Your task to perform on an android device: open app "Messages" (install if not already installed) and go to login screen Image 0: 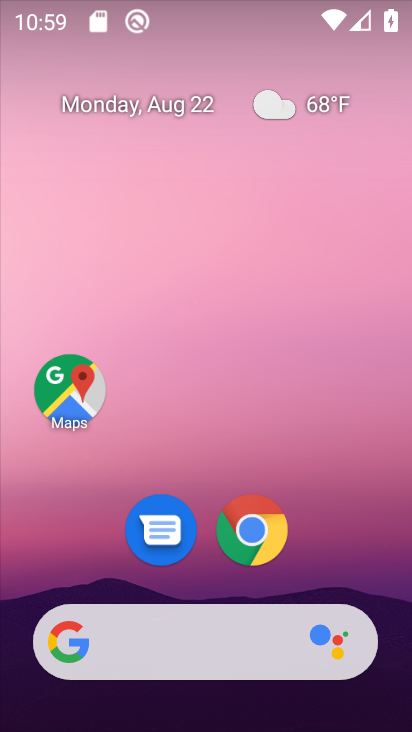
Step 0: drag from (194, 655) to (229, 42)
Your task to perform on an android device: open app "Messages" (install if not already installed) and go to login screen Image 1: 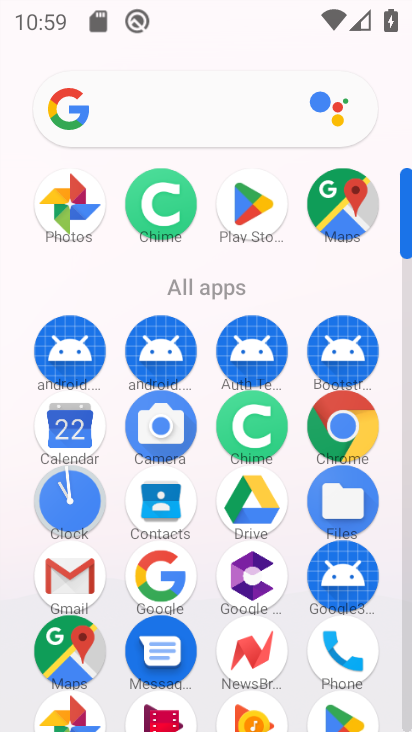
Step 1: drag from (207, 627) to (248, 192)
Your task to perform on an android device: open app "Messages" (install if not already installed) and go to login screen Image 2: 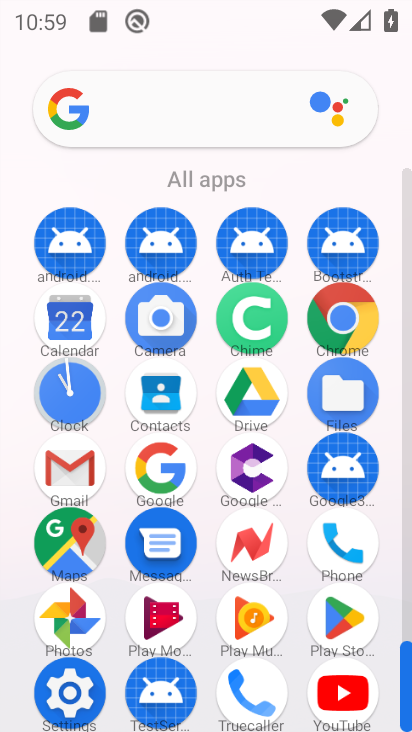
Step 2: click (344, 622)
Your task to perform on an android device: open app "Messages" (install if not already installed) and go to login screen Image 3: 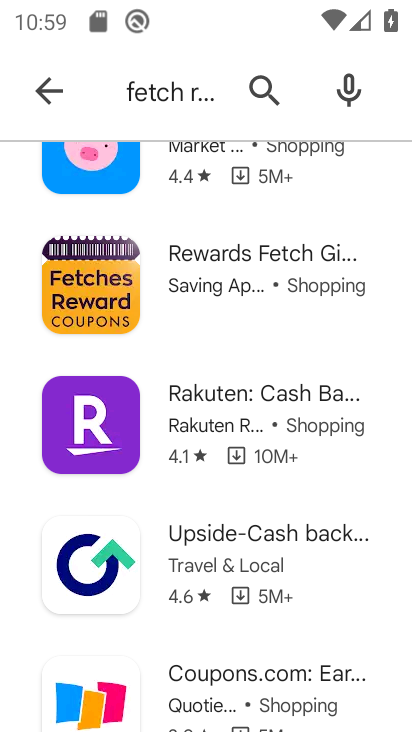
Step 3: press back button
Your task to perform on an android device: open app "Messages" (install if not already installed) and go to login screen Image 4: 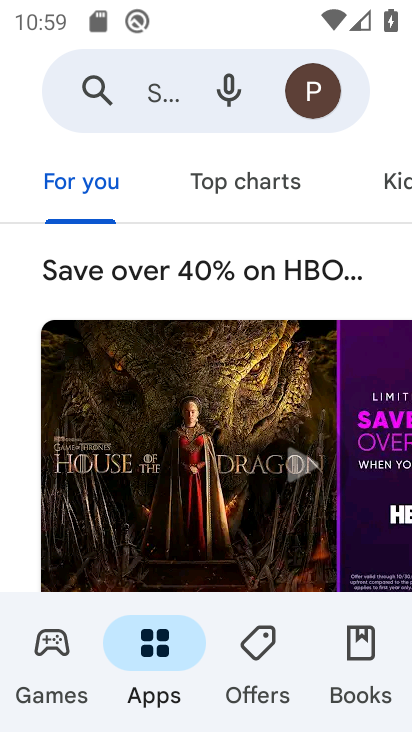
Step 4: click (174, 94)
Your task to perform on an android device: open app "Messages" (install if not already installed) and go to login screen Image 5: 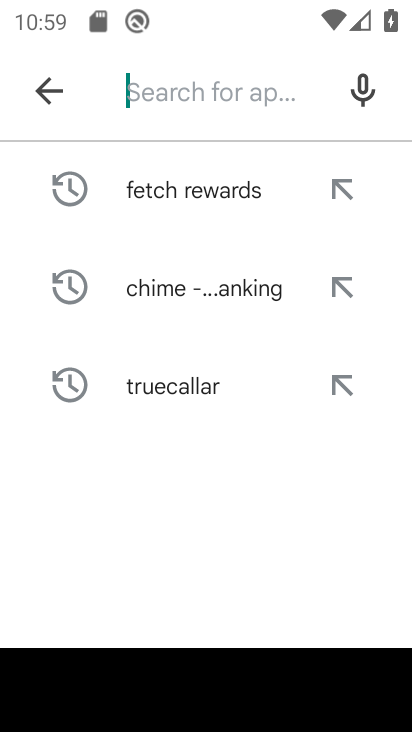
Step 5: type "Messages"
Your task to perform on an android device: open app "Messages" (install if not already installed) and go to login screen Image 6: 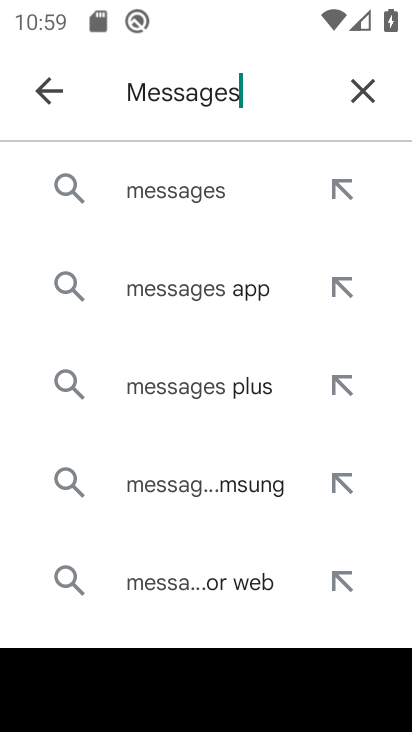
Step 6: click (170, 197)
Your task to perform on an android device: open app "Messages" (install if not already installed) and go to login screen Image 7: 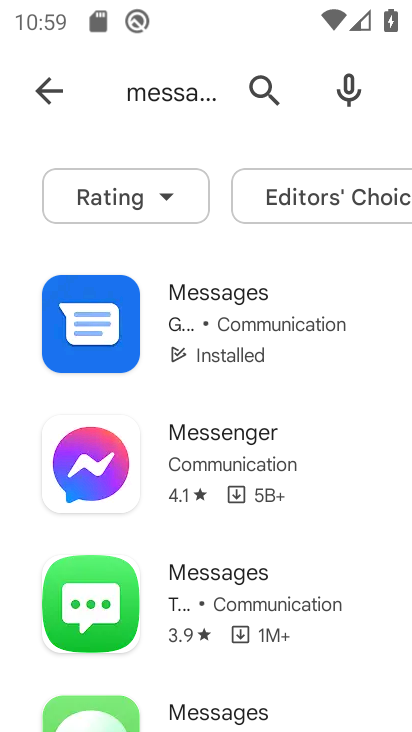
Step 7: click (208, 295)
Your task to perform on an android device: open app "Messages" (install if not already installed) and go to login screen Image 8: 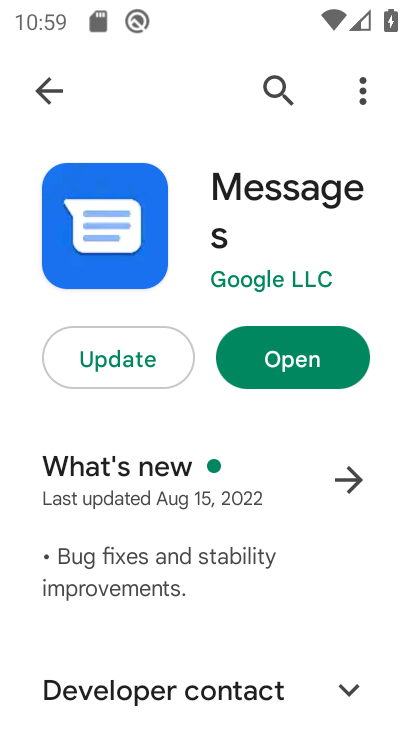
Step 8: click (111, 345)
Your task to perform on an android device: open app "Messages" (install if not already installed) and go to login screen Image 9: 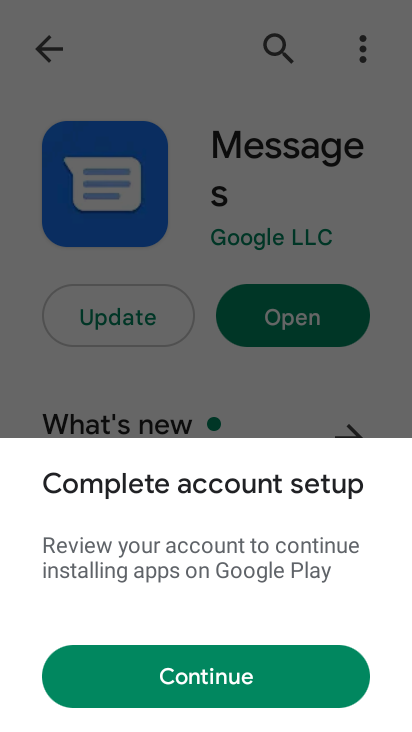
Step 9: click (141, 684)
Your task to perform on an android device: open app "Messages" (install if not already installed) and go to login screen Image 10: 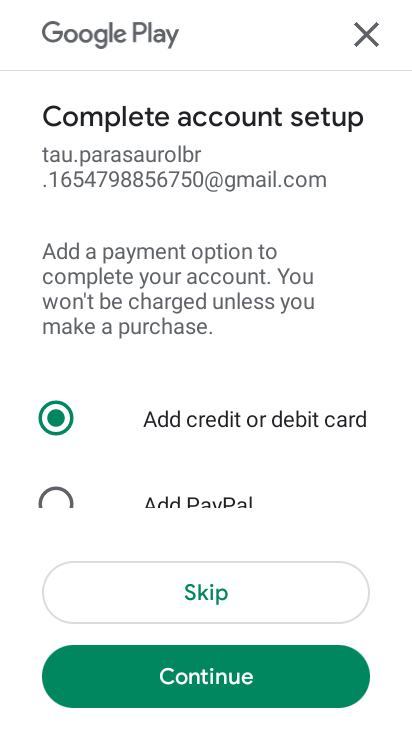
Step 10: click (152, 611)
Your task to perform on an android device: open app "Messages" (install if not already installed) and go to login screen Image 11: 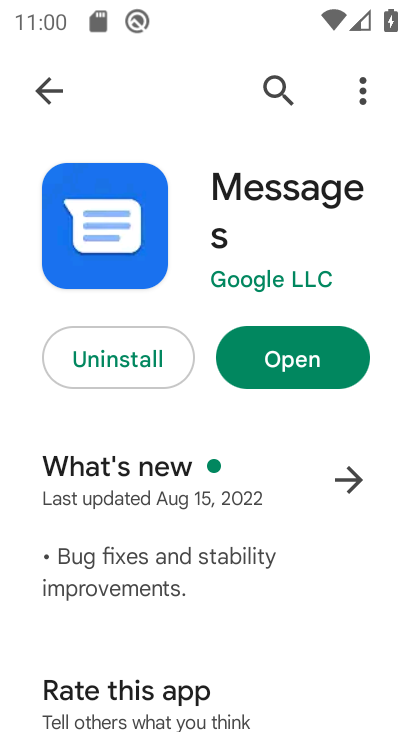
Step 11: click (266, 350)
Your task to perform on an android device: open app "Messages" (install if not already installed) and go to login screen Image 12: 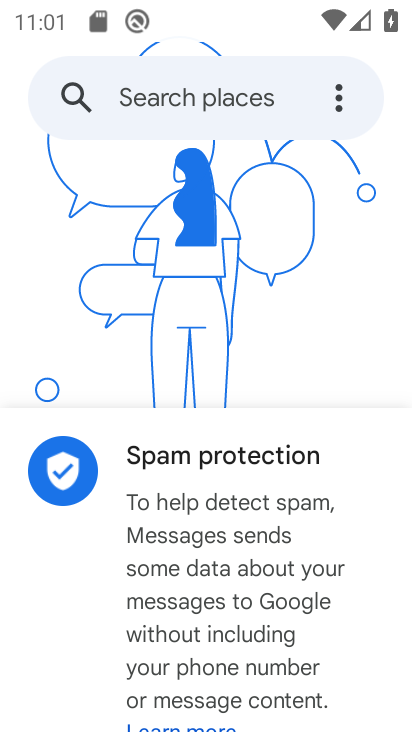
Step 12: drag from (215, 599) to (246, 213)
Your task to perform on an android device: open app "Messages" (install if not already installed) and go to login screen Image 13: 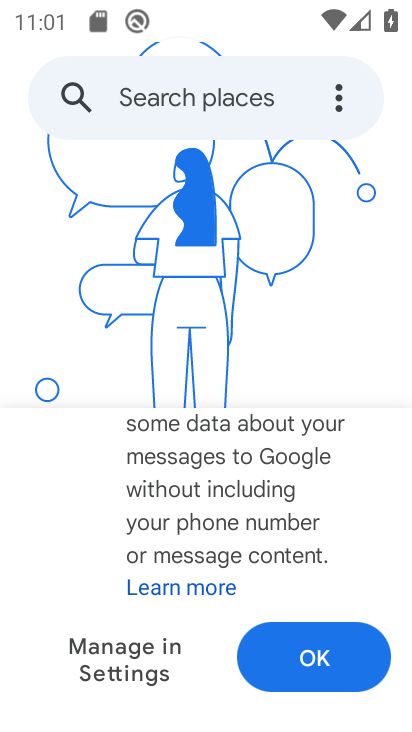
Step 13: click (329, 669)
Your task to perform on an android device: open app "Messages" (install if not already installed) and go to login screen Image 14: 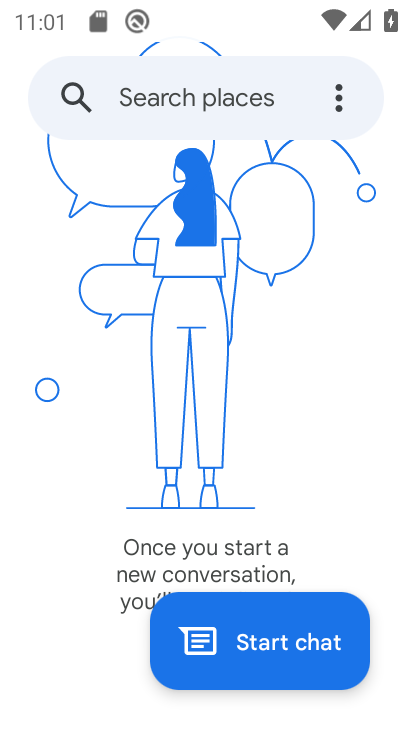
Step 14: click (41, 385)
Your task to perform on an android device: open app "Messages" (install if not already installed) and go to login screen Image 15: 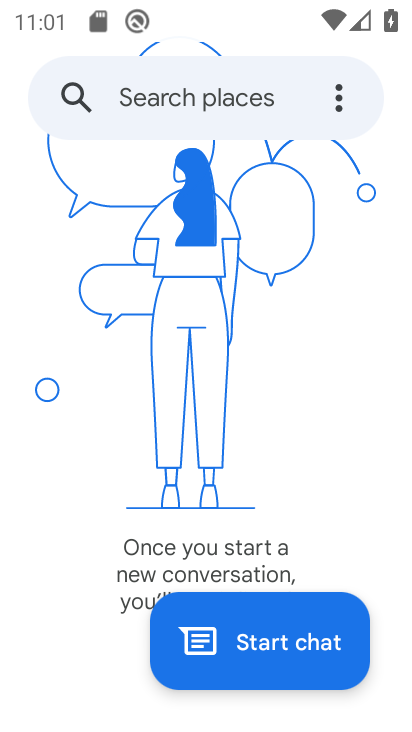
Step 15: click (265, 655)
Your task to perform on an android device: open app "Messages" (install if not already installed) and go to login screen Image 16: 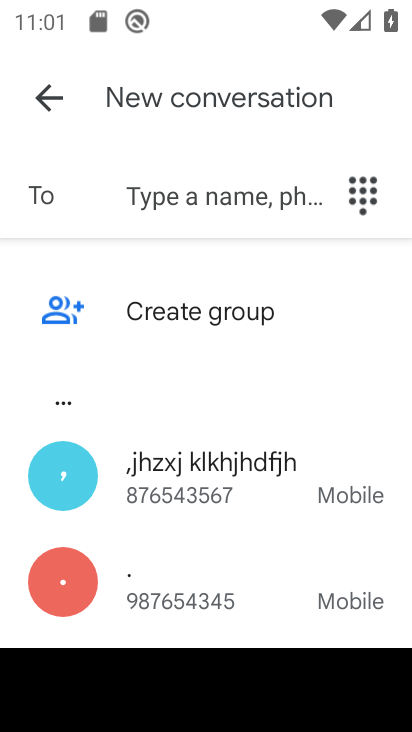
Step 16: task complete